Your task to perform on an android device: Go to internet settings Image 0: 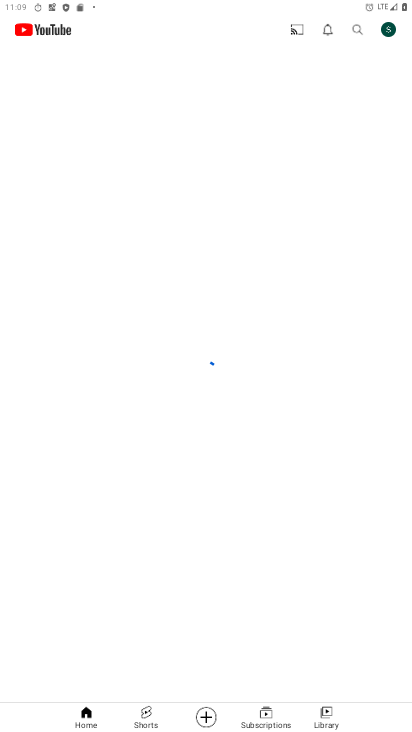
Step 0: press home button
Your task to perform on an android device: Go to internet settings Image 1: 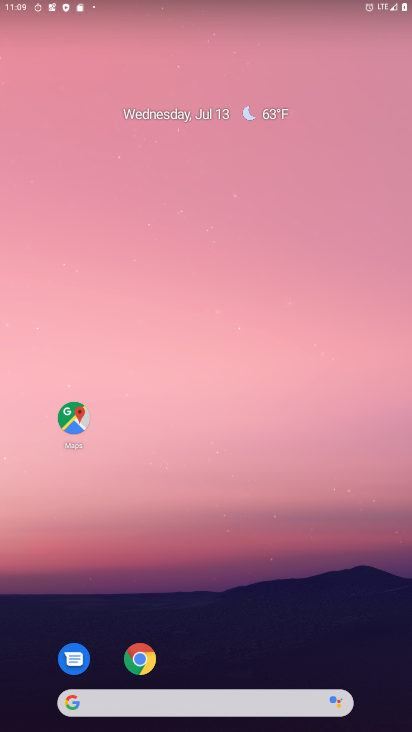
Step 1: drag from (253, 551) to (245, 60)
Your task to perform on an android device: Go to internet settings Image 2: 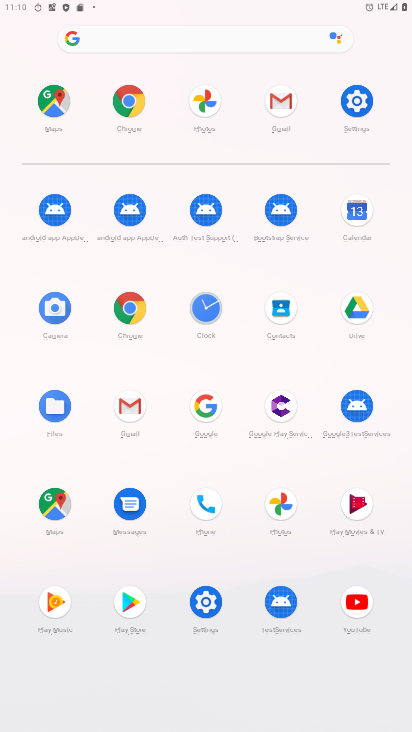
Step 2: click (361, 108)
Your task to perform on an android device: Go to internet settings Image 3: 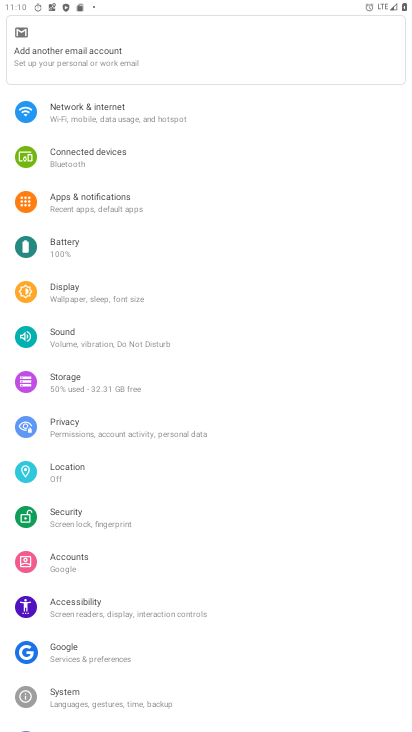
Step 3: click (95, 110)
Your task to perform on an android device: Go to internet settings Image 4: 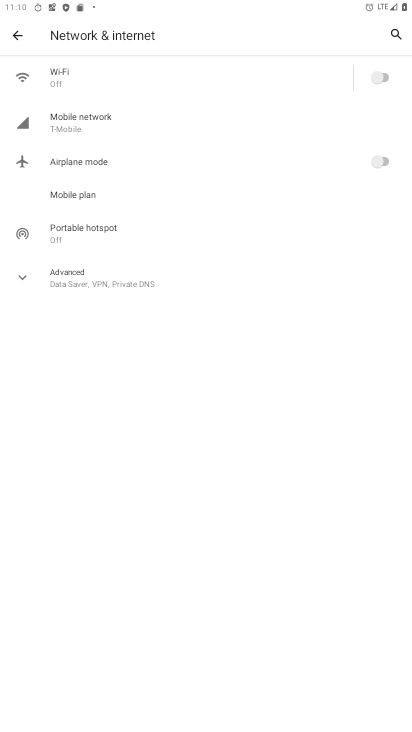
Step 4: click (86, 295)
Your task to perform on an android device: Go to internet settings Image 5: 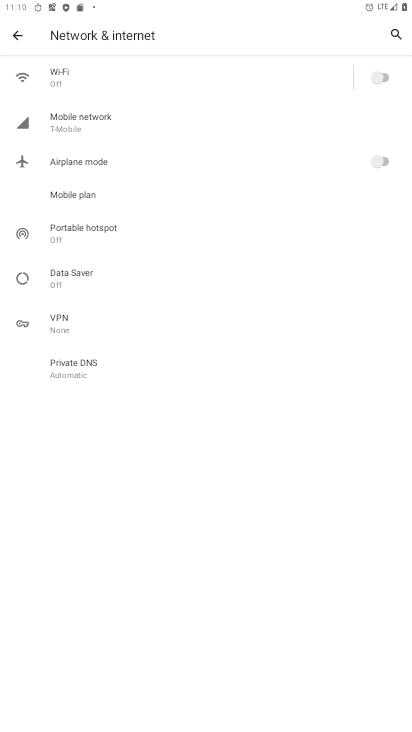
Step 5: task complete